Your task to perform on an android device: Open the web browser Image 0: 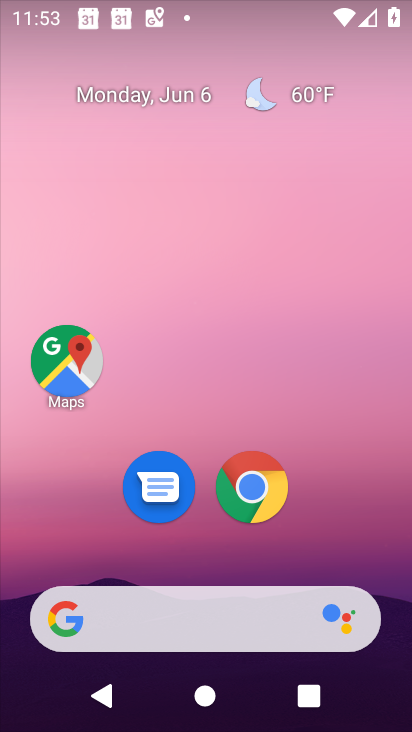
Step 0: click (263, 502)
Your task to perform on an android device: Open the web browser Image 1: 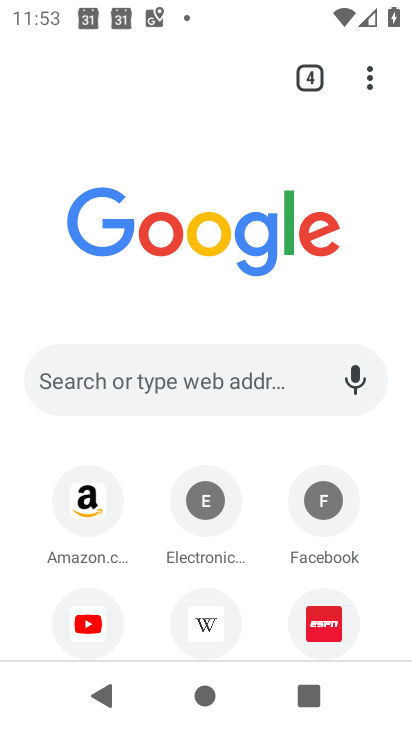
Step 1: task complete